Your task to perform on an android device: Open Chrome and go to the settings page Image 0: 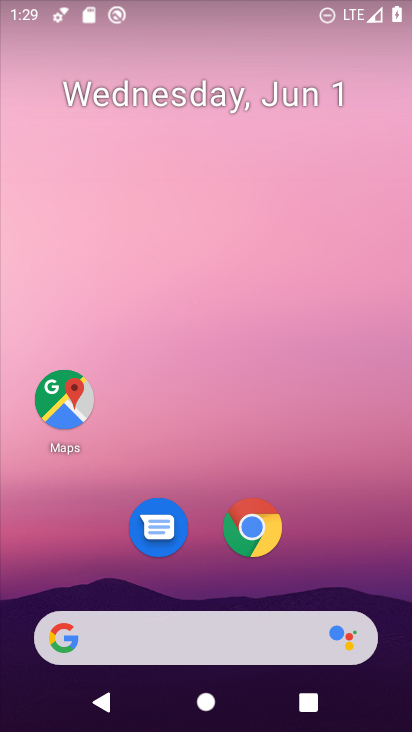
Step 0: click (265, 524)
Your task to perform on an android device: Open Chrome and go to the settings page Image 1: 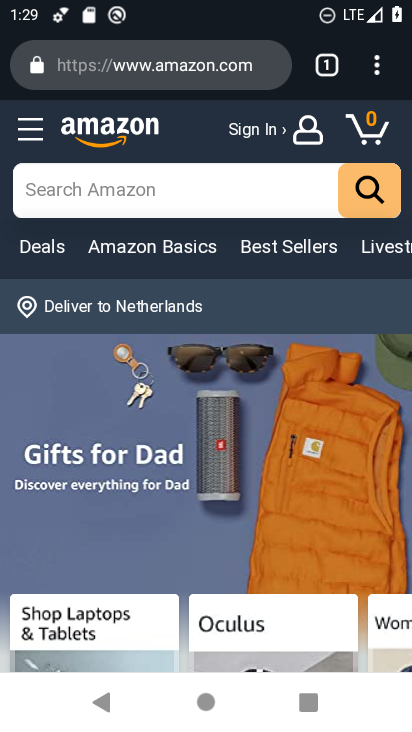
Step 1: click (380, 53)
Your task to perform on an android device: Open Chrome and go to the settings page Image 2: 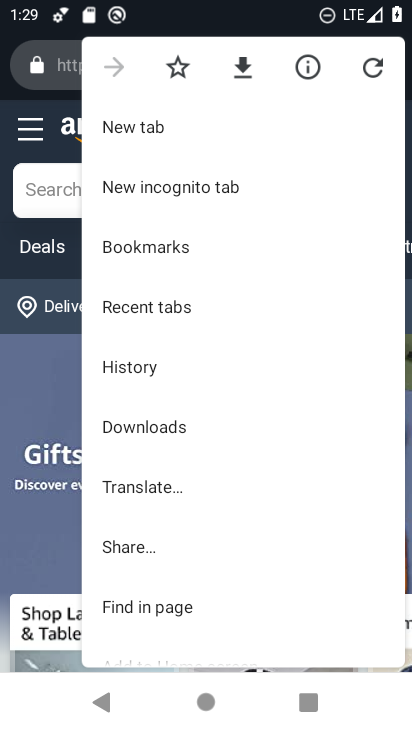
Step 2: drag from (168, 641) to (110, 226)
Your task to perform on an android device: Open Chrome and go to the settings page Image 3: 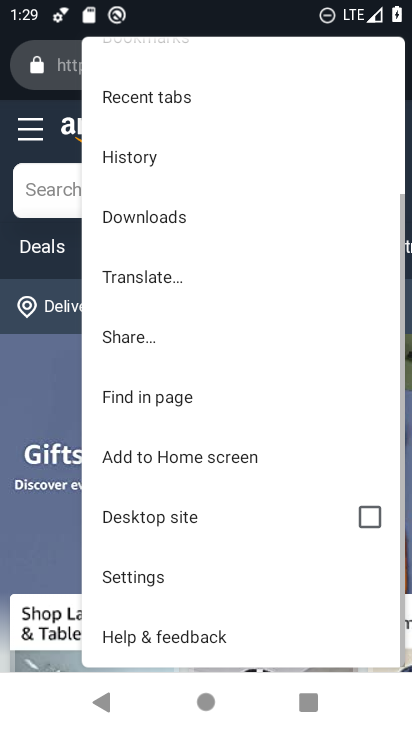
Step 3: click (107, 586)
Your task to perform on an android device: Open Chrome and go to the settings page Image 4: 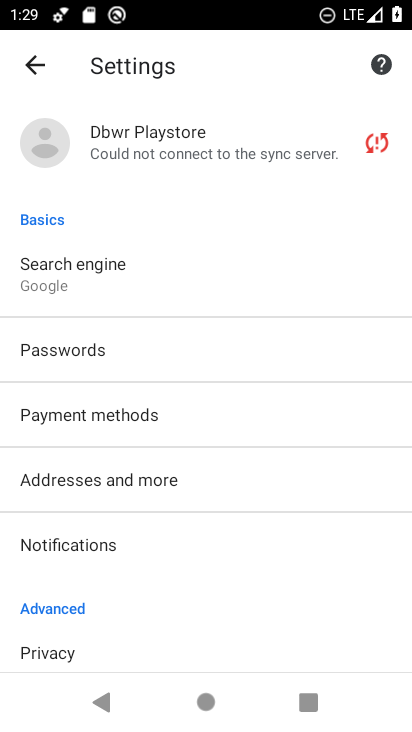
Step 4: task complete